Your task to perform on an android device: star an email in the gmail app Image 0: 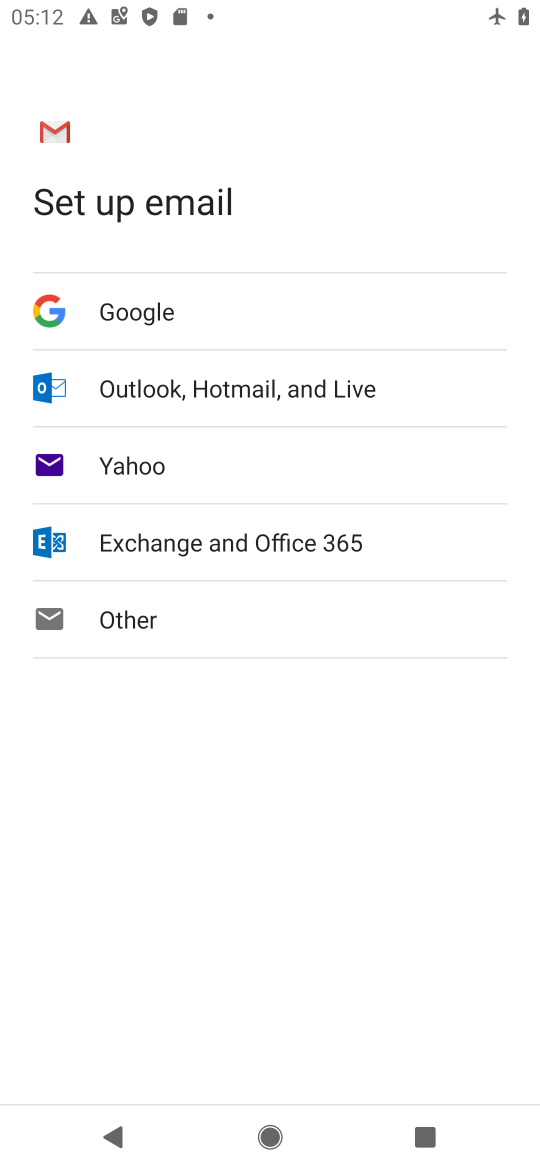
Step 0: press home button
Your task to perform on an android device: star an email in the gmail app Image 1: 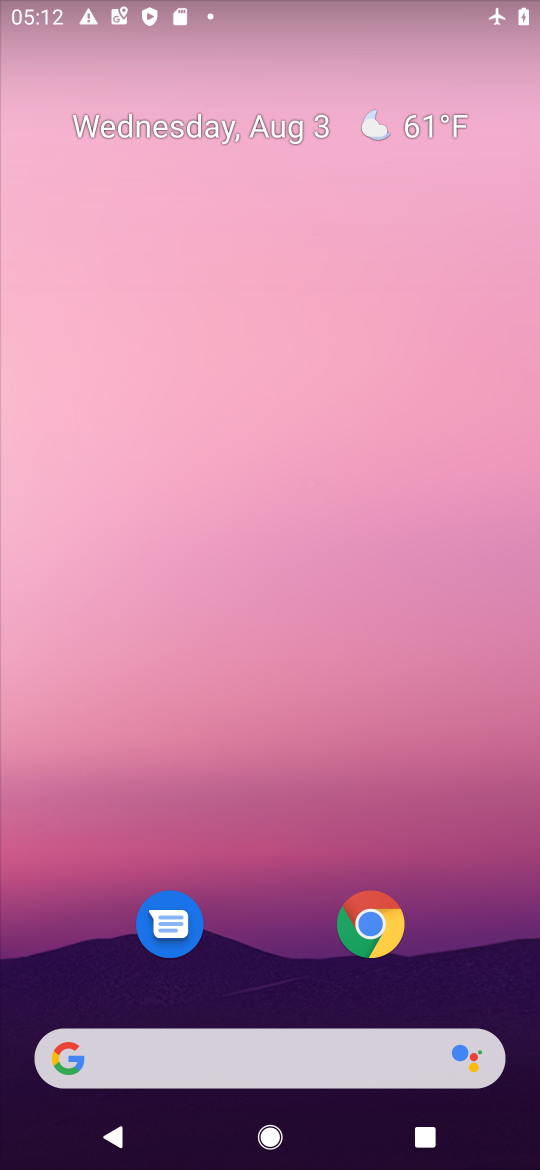
Step 1: drag from (263, 983) to (280, 411)
Your task to perform on an android device: star an email in the gmail app Image 2: 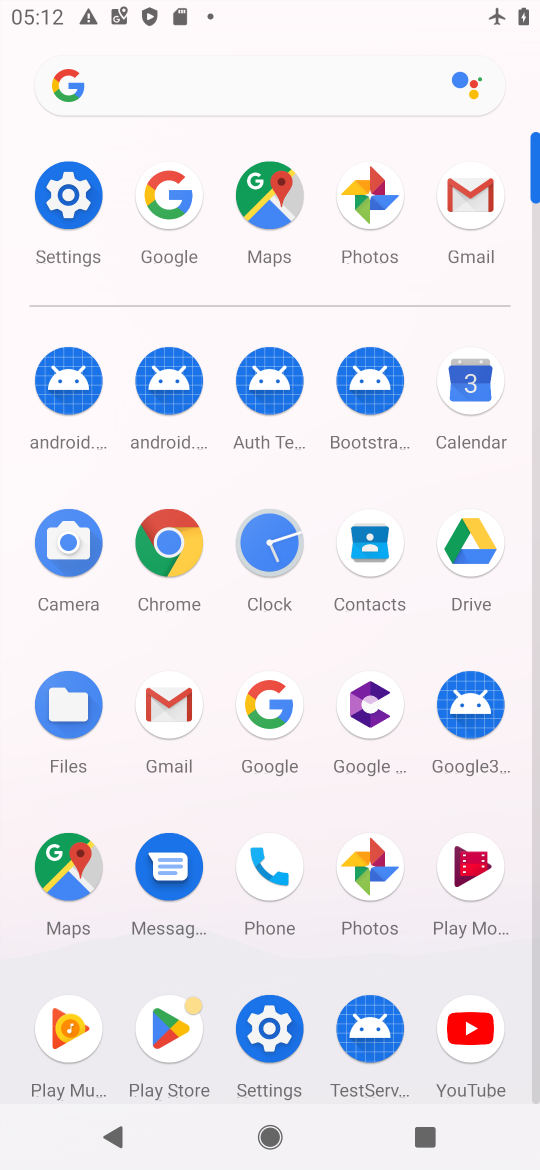
Step 2: click (461, 191)
Your task to perform on an android device: star an email in the gmail app Image 3: 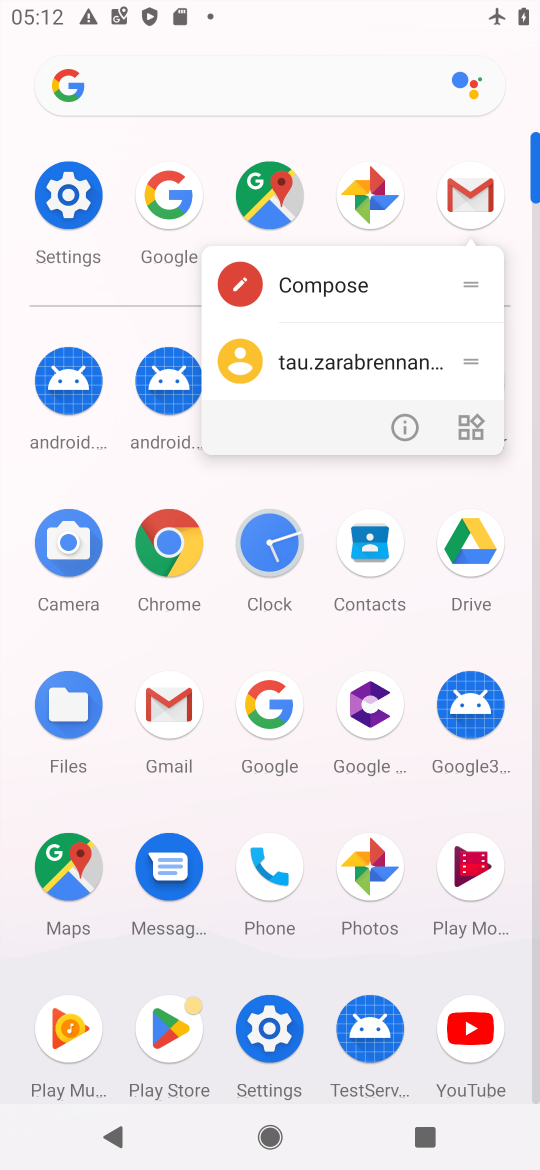
Step 3: click (461, 191)
Your task to perform on an android device: star an email in the gmail app Image 4: 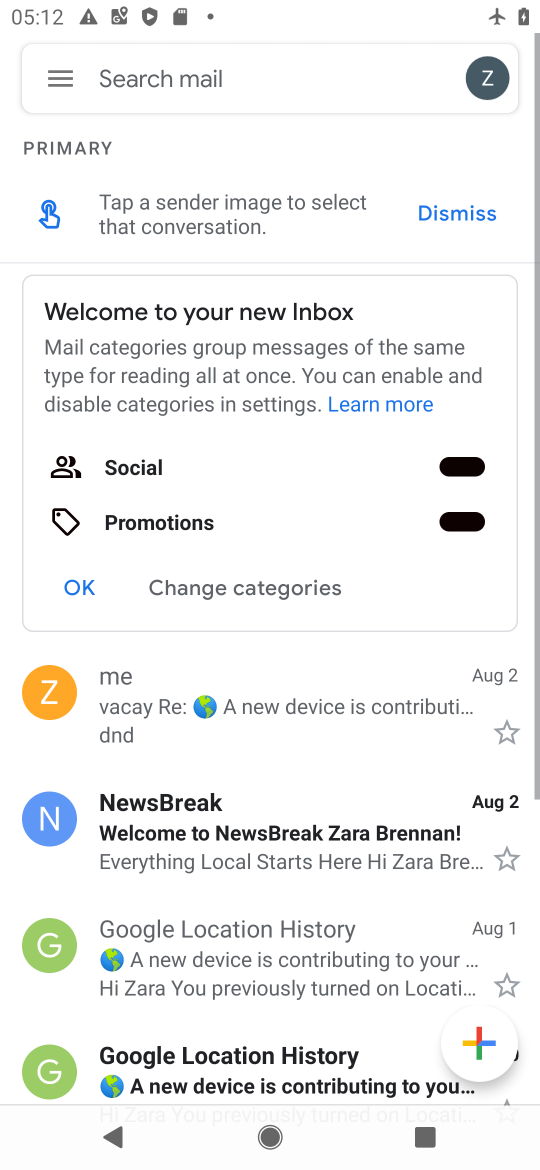
Step 4: click (461, 191)
Your task to perform on an android device: star an email in the gmail app Image 5: 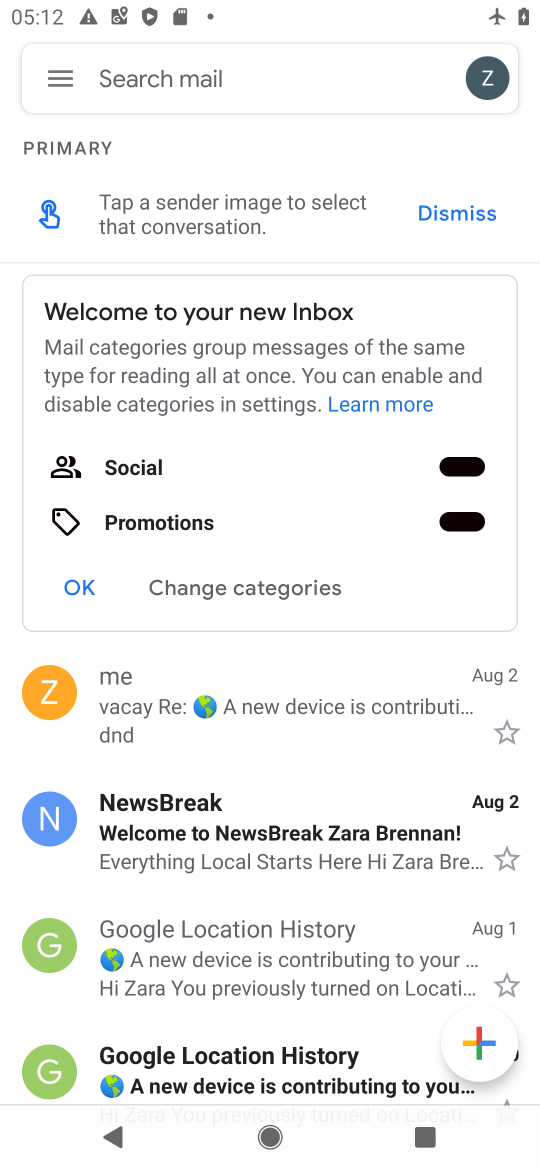
Step 5: click (504, 726)
Your task to perform on an android device: star an email in the gmail app Image 6: 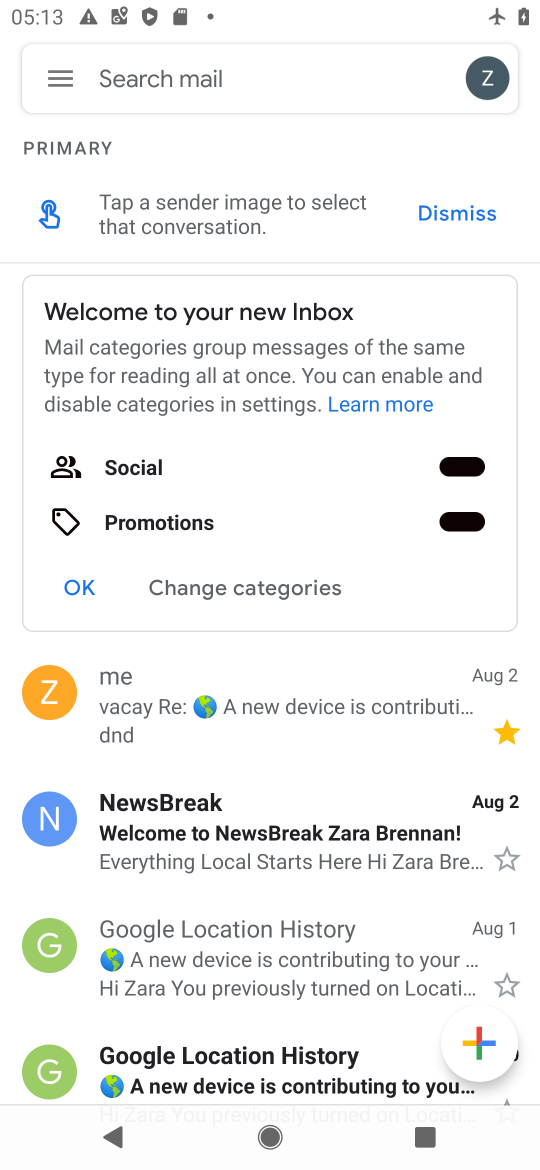
Step 6: task complete